Your task to perform on an android device: set the timer Image 0: 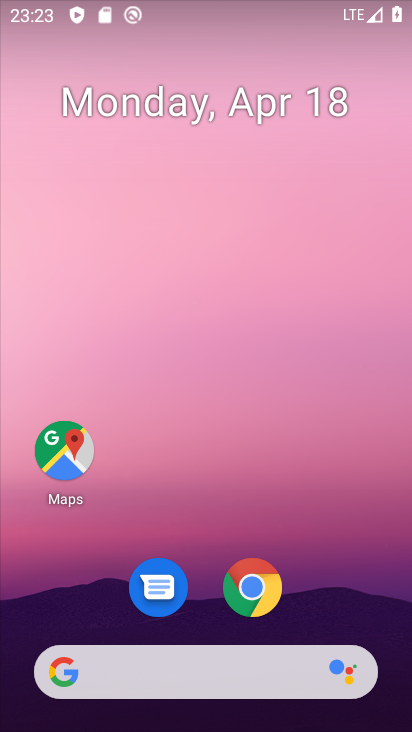
Step 0: drag from (367, 554) to (324, 186)
Your task to perform on an android device: set the timer Image 1: 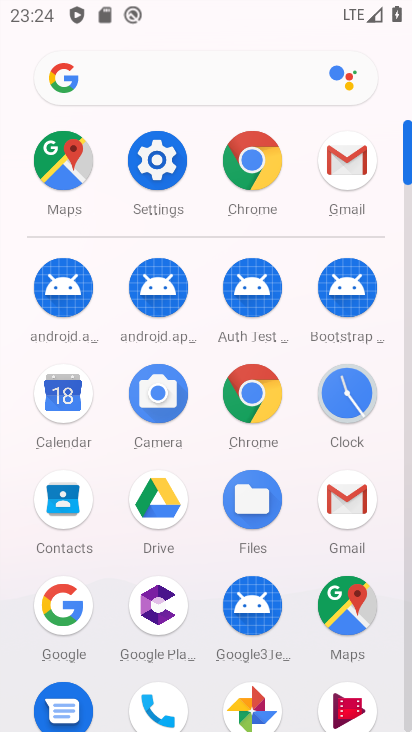
Step 1: click (342, 406)
Your task to perform on an android device: set the timer Image 2: 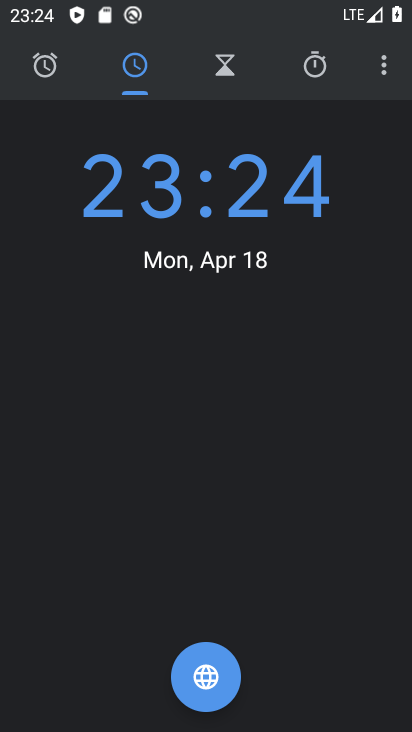
Step 2: click (227, 67)
Your task to perform on an android device: set the timer Image 3: 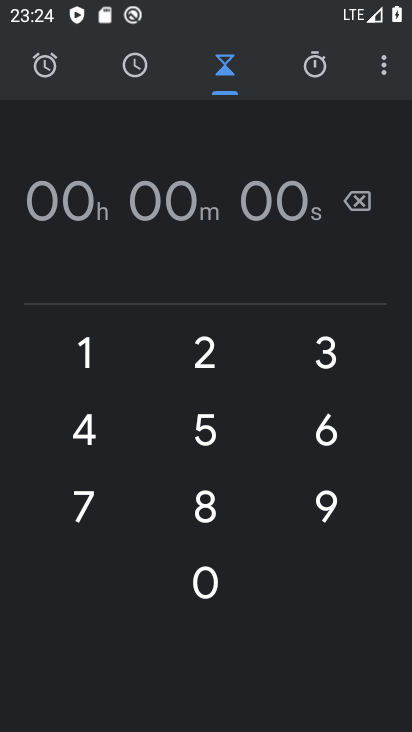
Step 3: click (77, 370)
Your task to perform on an android device: set the timer Image 4: 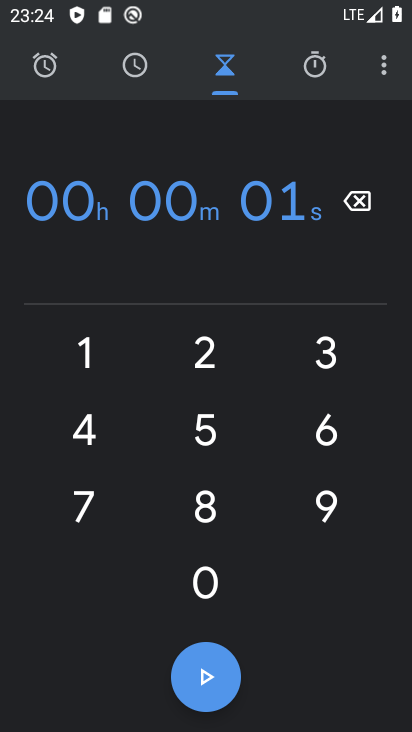
Step 4: click (215, 361)
Your task to perform on an android device: set the timer Image 5: 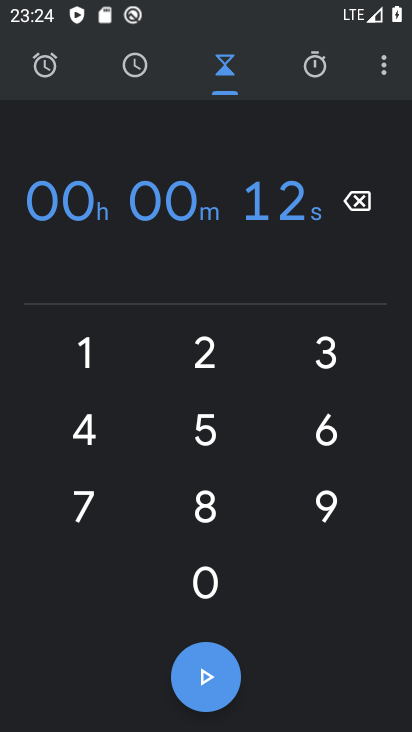
Step 5: click (202, 688)
Your task to perform on an android device: set the timer Image 6: 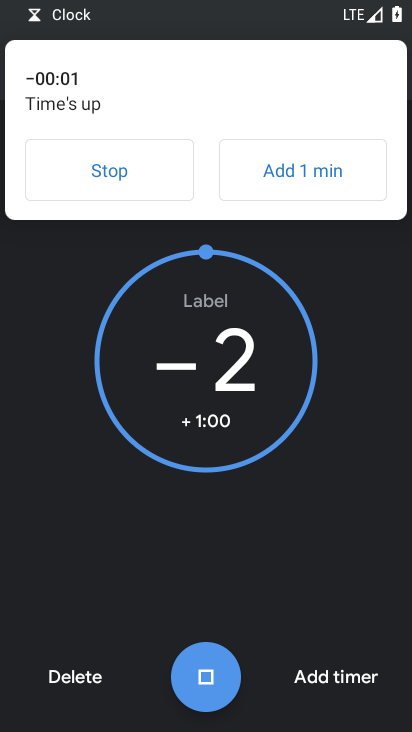
Step 6: click (99, 176)
Your task to perform on an android device: set the timer Image 7: 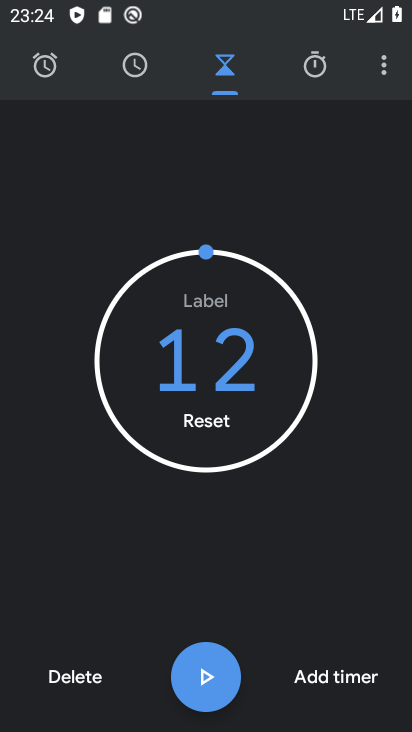
Step 7: task complete